Your task to perform on an android device: Open Chrome and go to settings Image 0: 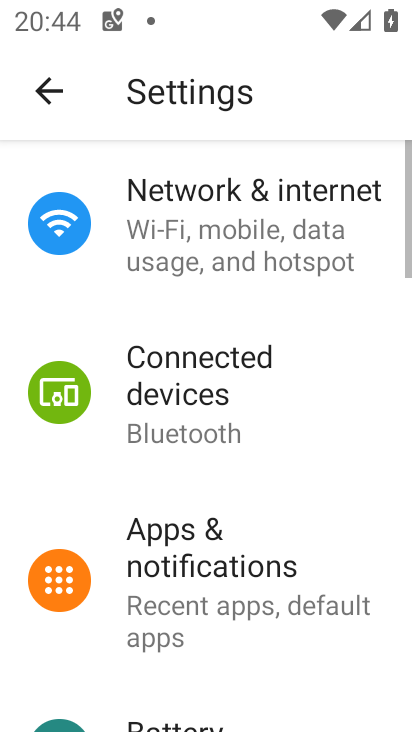
Step 0: press home button
Your task to perform on an android device: Open Chrome and go to settings Image 1: 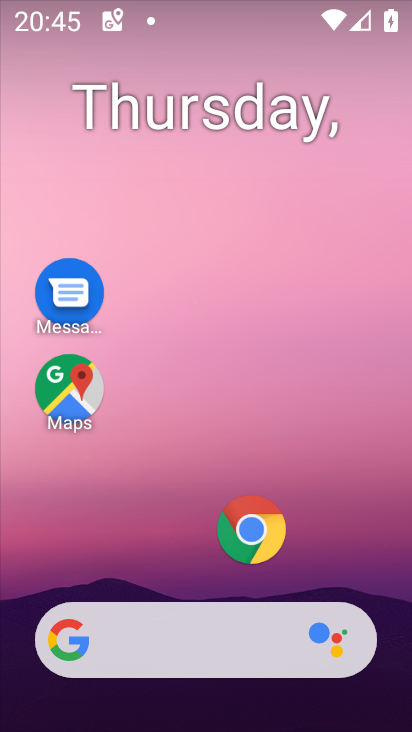
Step 1: click (249, 518)
Your task to perform on an android device: Open Chrome and go to settings Image 2: 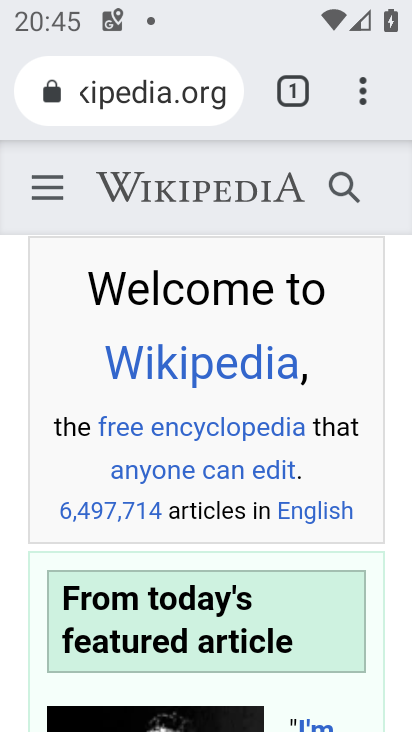
Step 2: click (345, 88)
Your task to perform on an android device: Open Chrome and go to settings Image 3: 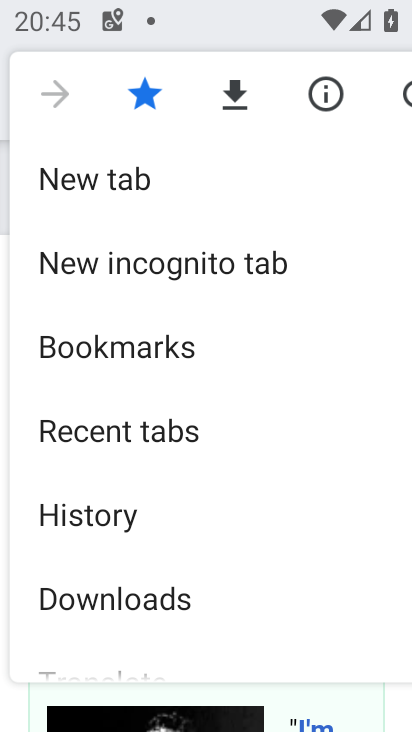
Step 3: drag from (117, 533) to (190, 235)
Your task to perform on an android device: Open Chrome and go to settings Image 4: 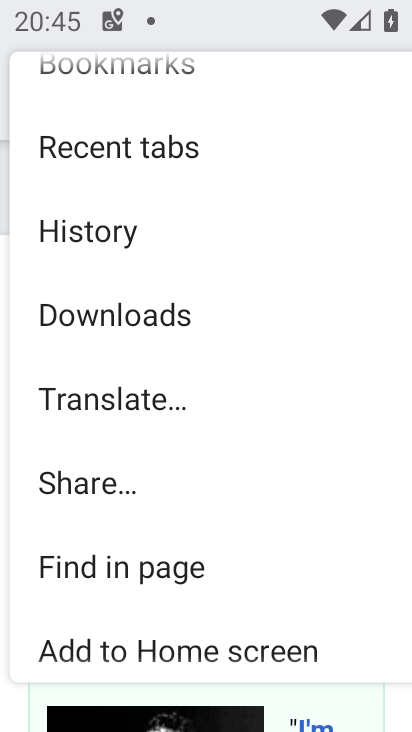
Step 4: drag from (118, 656) to (222, 279)
Your task to perform on an android device: Open Chrome and go to settings Image 5: 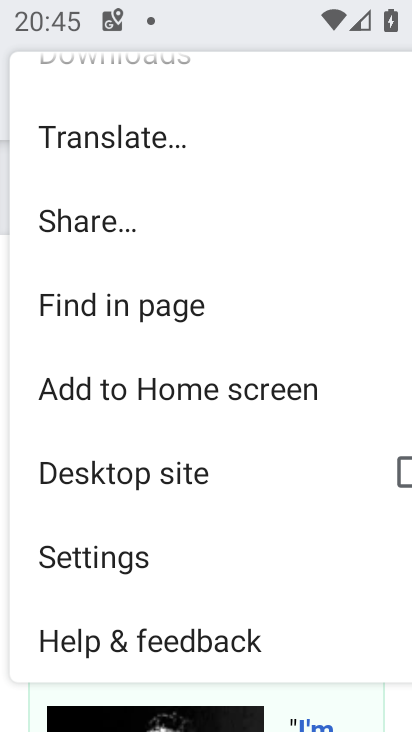
Step 5: click (87, 550)
Your task to perform on an android device: Open Chrome and go to settings Image 6: 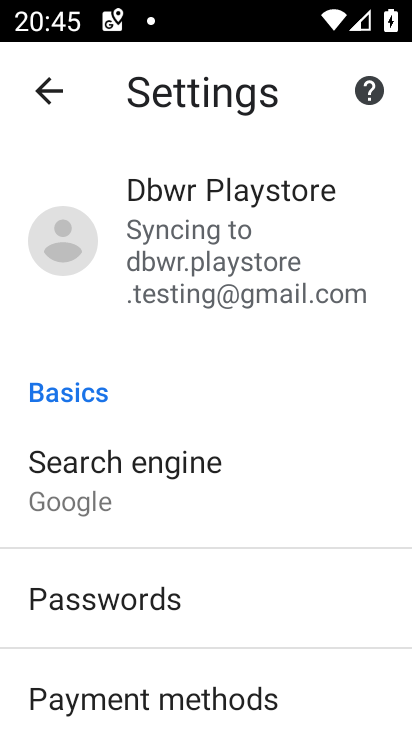
Step 6: task complete